Your task to perform on an android device: Open maps Image 0: 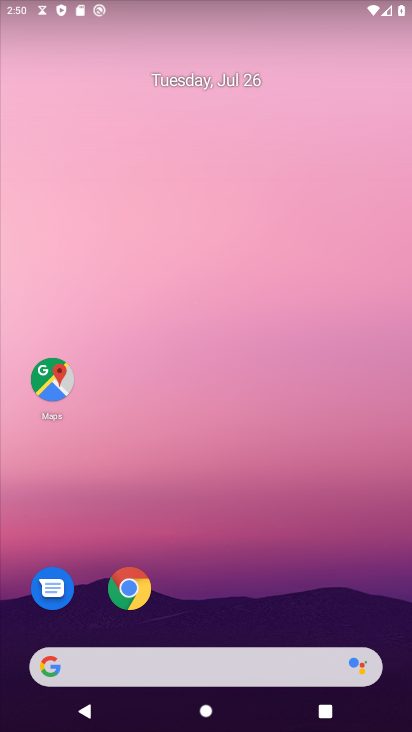
Step 0: drag from (281, 587) to (339, 72)
Your task to perform on an android device: Open maps Image 1: 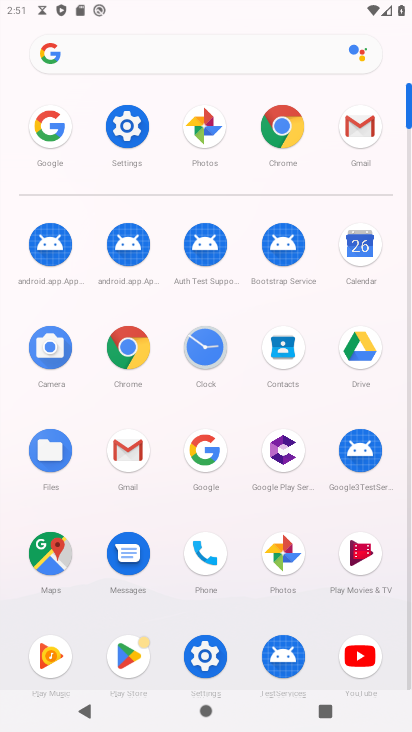
Step 1: click (49, 549)
Your task to perform on an android device: Open maps Image 2: 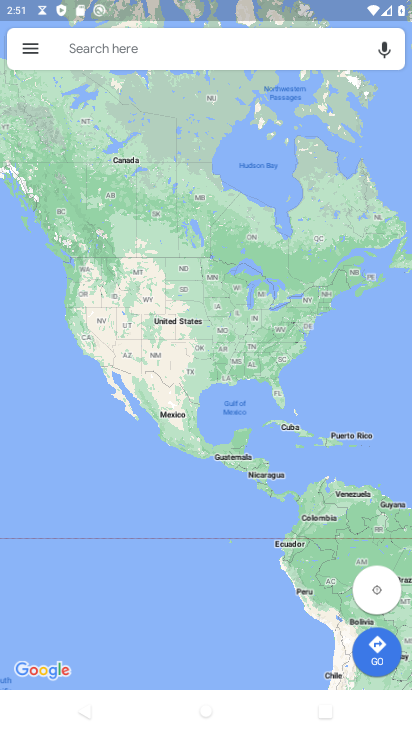
Step 2: task complete